Your task to perform on an android device: Open calendar and show me the second week of next month Image 0: 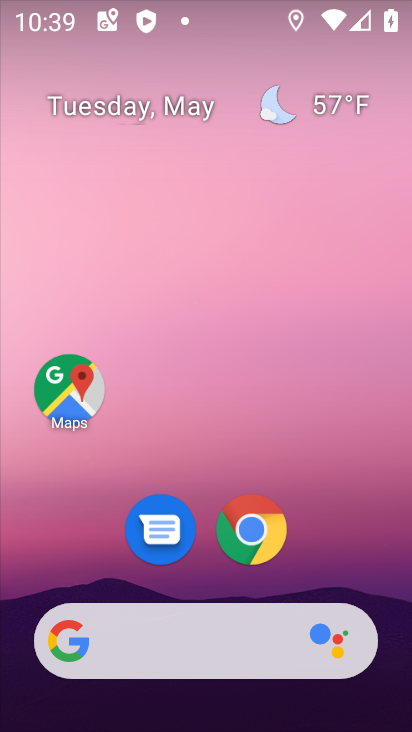
Step 0: click (117, 103)
Your task to perform on an android device: Open calendar and show me the second week of next month Image 1: 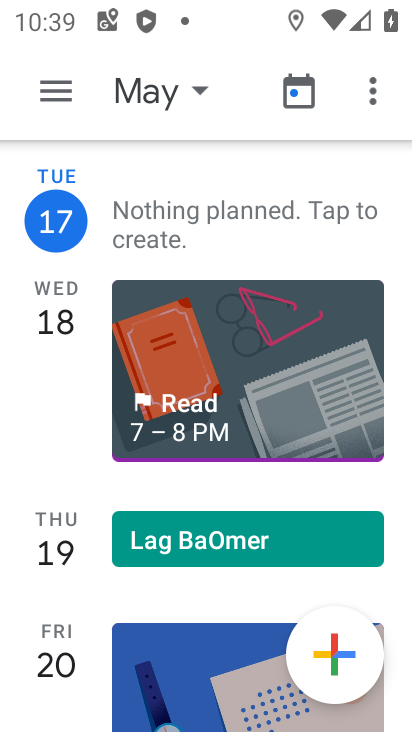
Step 1: click (117, 103)
Your task to perform on an android device: Open calendar and show me the second week of next month Image 2: 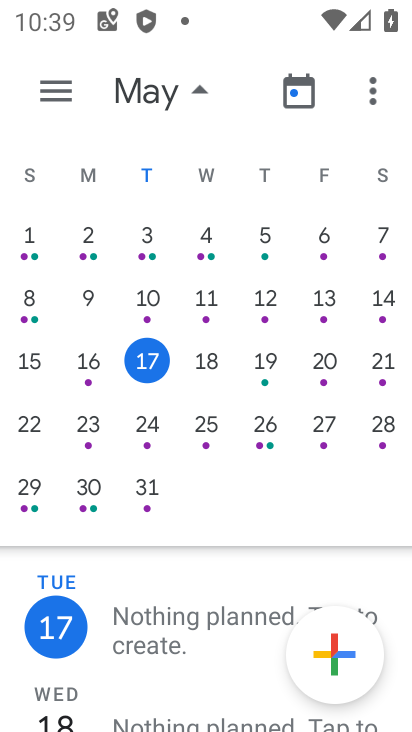
Step 2: drag from (347, 497) to (215, 397)
Your task to perform on an android device: Open calendar and show me the second week of next month Image 3: 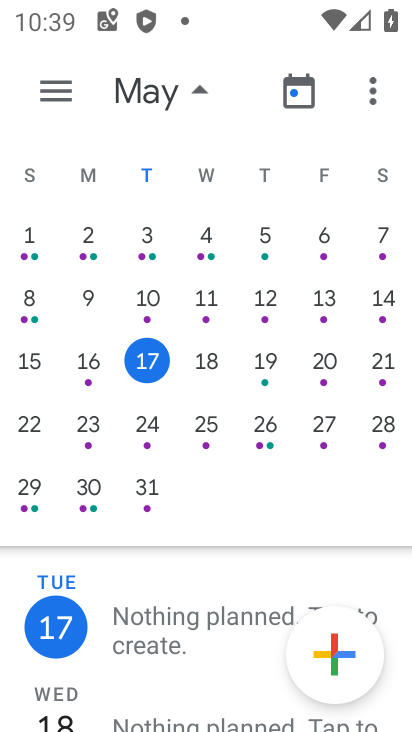
Step 3: drag from (344, 508) to (22, 461)
Your task to perform on an android device: Open calendar and show me the second week of next month Image 4: 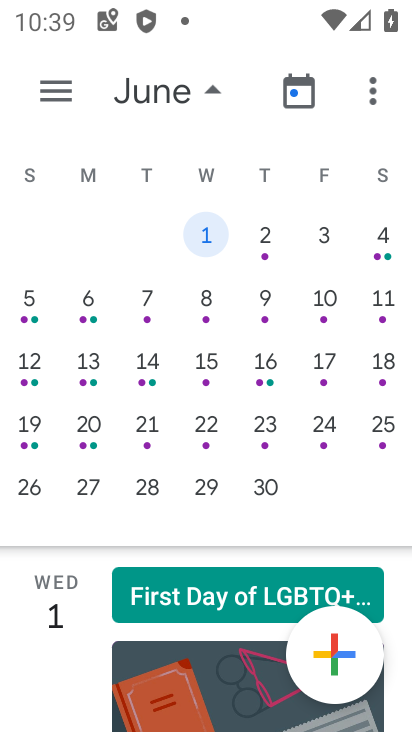
Step 4: click (207, 299)
Your task to perform on an android device: Open calendar and show me the second week of next month Image 5: 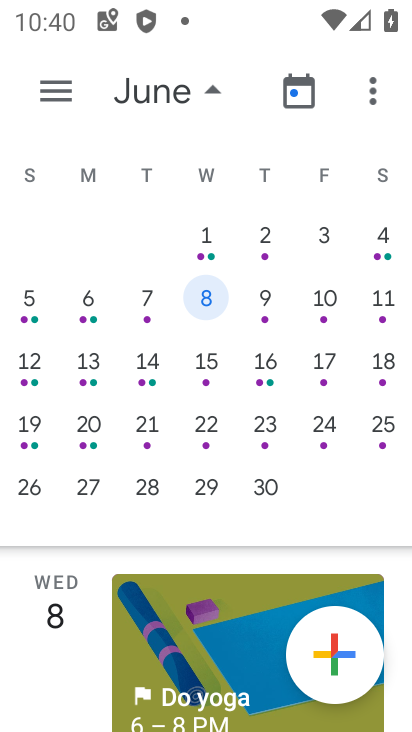
Step 5: task complete